Your task to perform on an android device: open a new tab in the chrome app Image 0: 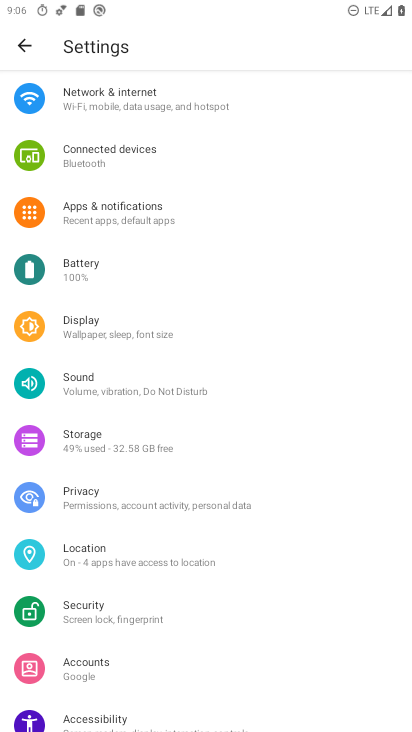
Step 0: drag from (201, 698) to (216, 63)
Your task to perform on an android device: open a new tab in the chrome app Image 1: 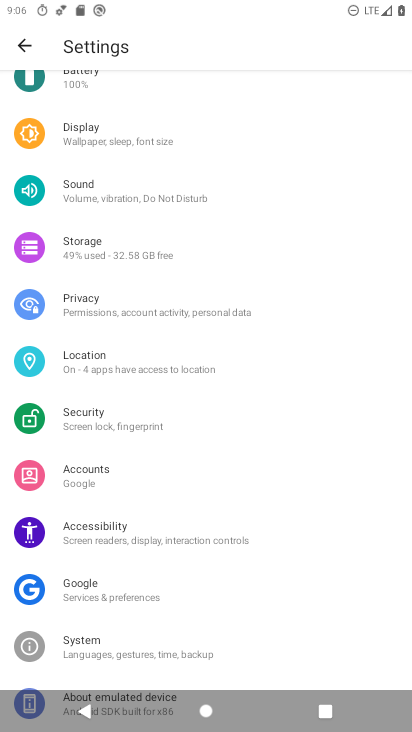
Step 1: press home button
Your task to perform on an android device: open a new tab in the chrome app Image 2: 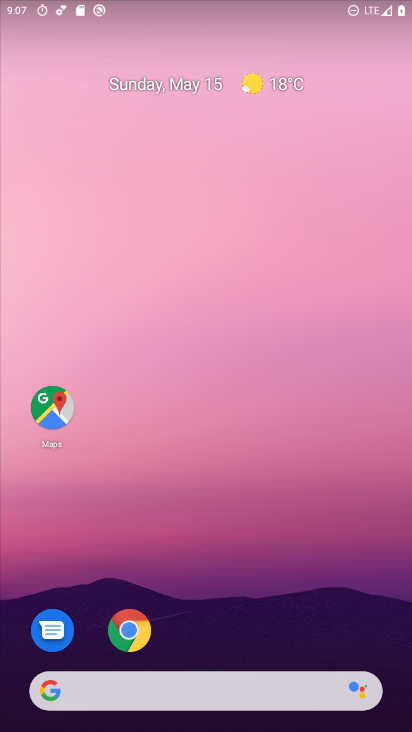
Step 2: drag from (226, 604) to (346, 17)
Your task to perform on an android device: open a new tab in the chrome app Image 3: 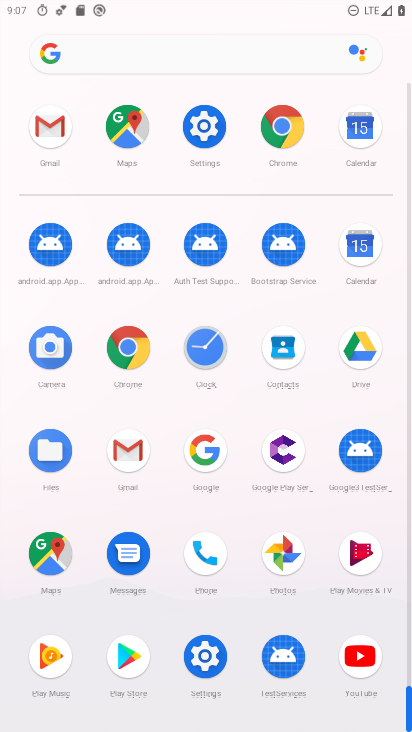
Step 3: click (280, 124)
Your task to perform on an android device: open a new tab in the chrome app Image 4: 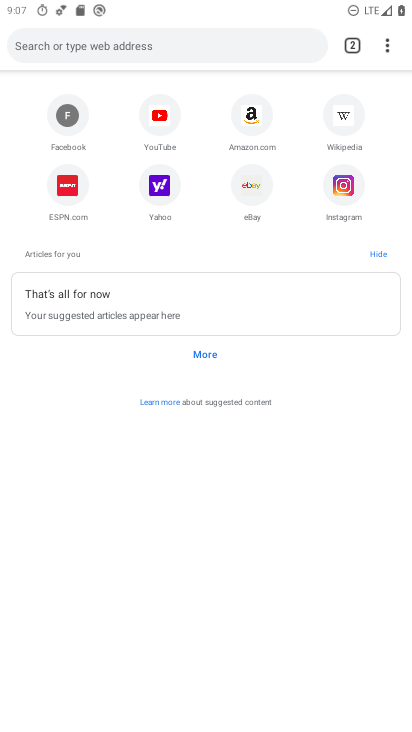
Step 4: click (350, 42)
Your task to perform on an android device: open a new tab in the chrome app Image 5: 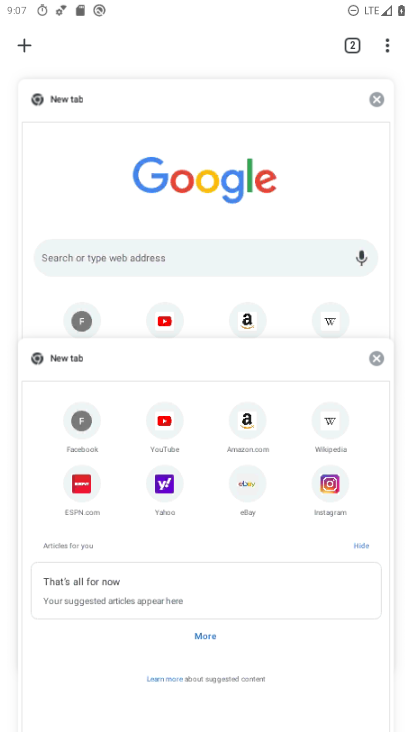
Step 5: click (21, 43)
Your task to perform on an android device: open a new tab in the chrome app Image 6: 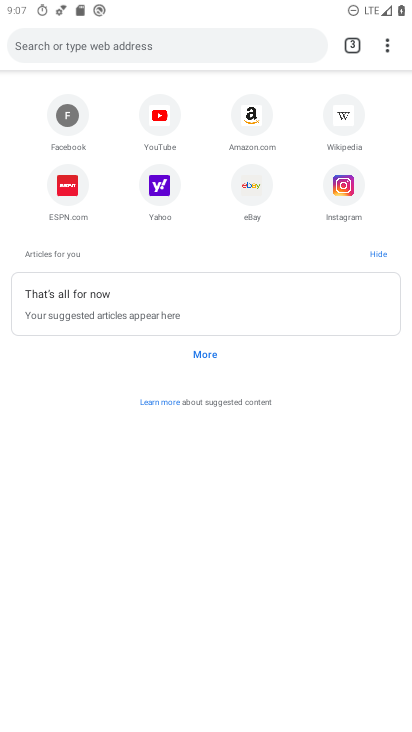
Step 6: task complete